Your task to perform on an android device: turn on javascript in the chrome app Image 0: 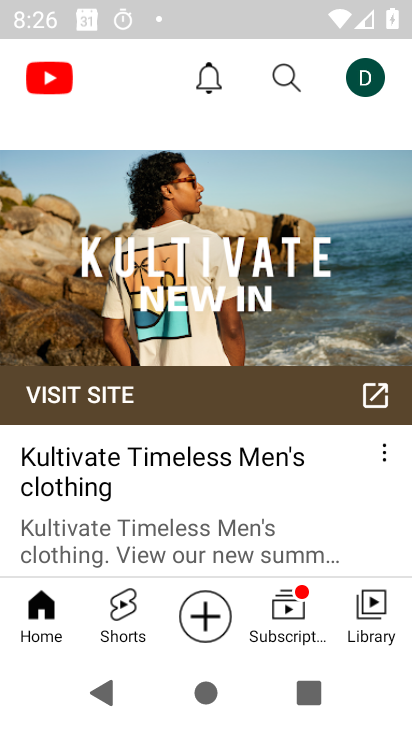
Step 0: press home button
Your task to perform on an android device: turn on javascript in the chrome app Image 1: 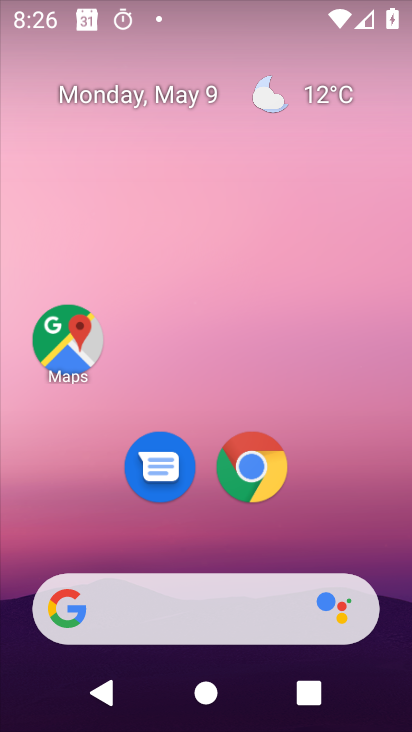
Step 1: click (252, 474)
Your task to perform on an android device: turn on javascript in the chrome app Image 2: 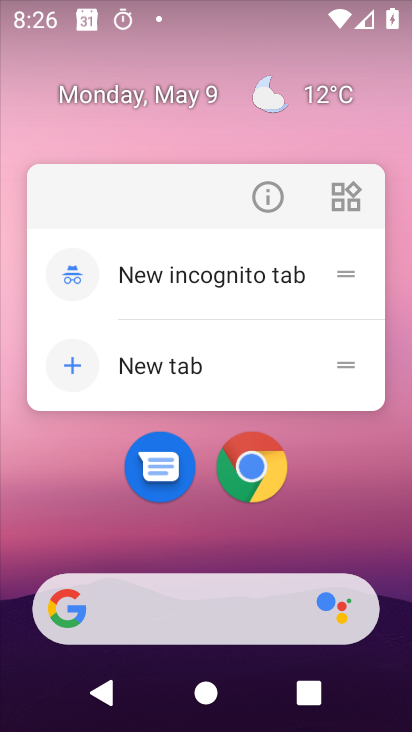
Step 2: click (252, 471)
Your task to perform on an android device: turn on javascript in the chrome app Image 3: 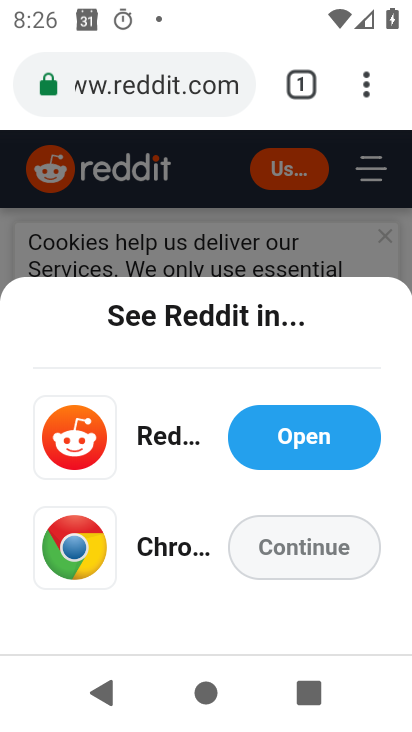
Step 3: drag from (370, 82) to (98, 512)
Your task to perform on an android device: turn on javascript in the chrome app Image 4: 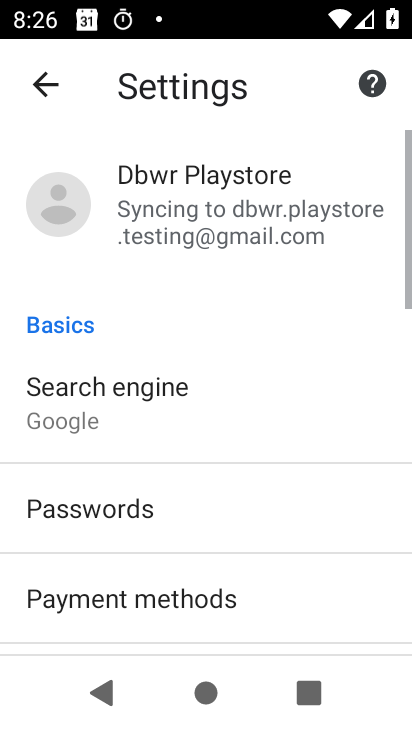
Step 4: drag from (227, 573) to (210, 160)
Your task to perform on an android device: turn on javascript in the chrome app Image 5: 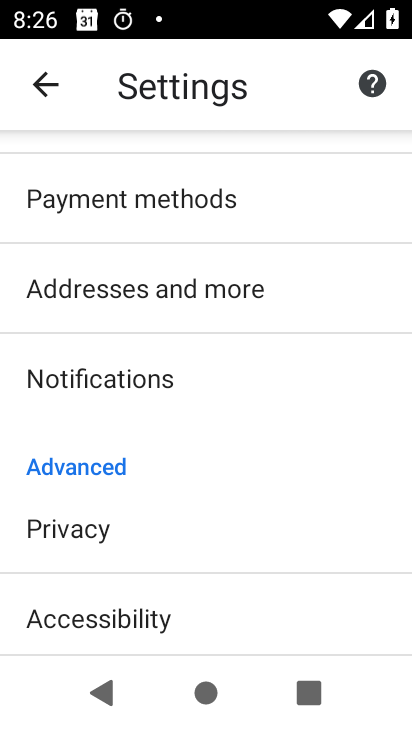
Step 5: drag from (173, 556) to (146, 198)
Your task to perform on an android device: turn on javascript in the chrome app Image 6: 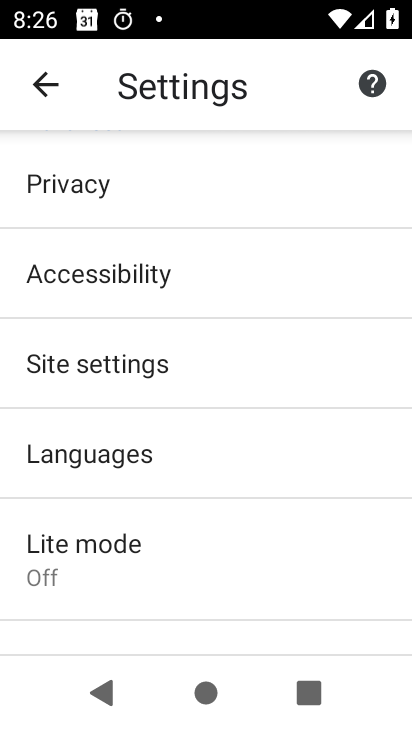
Step 6: click (113, 373)
Your task to perform on an android device: turn on javascript in the chrome app Image 7: 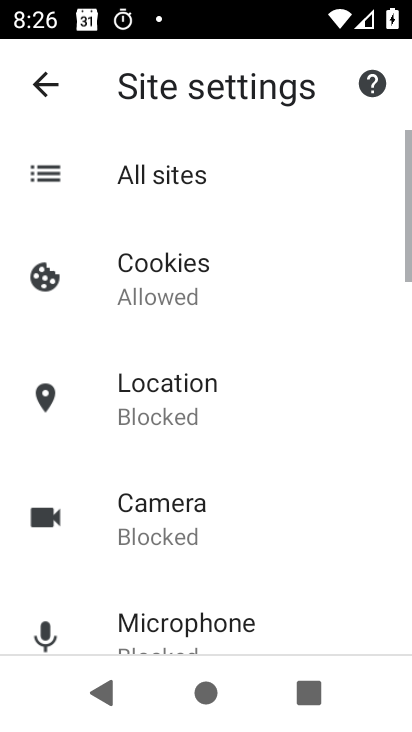
Step 7: drag from (217, 567) to (192, 227)
Your task to perform on an android device: turn on javascript in the chrome app Image 8: 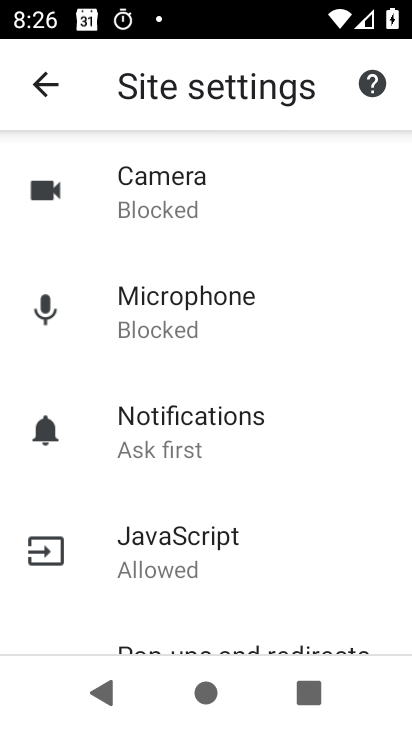
Step 8: click (181, 545)
Your task to perform on an android device: turn on javascript in the chrome app Image 9: 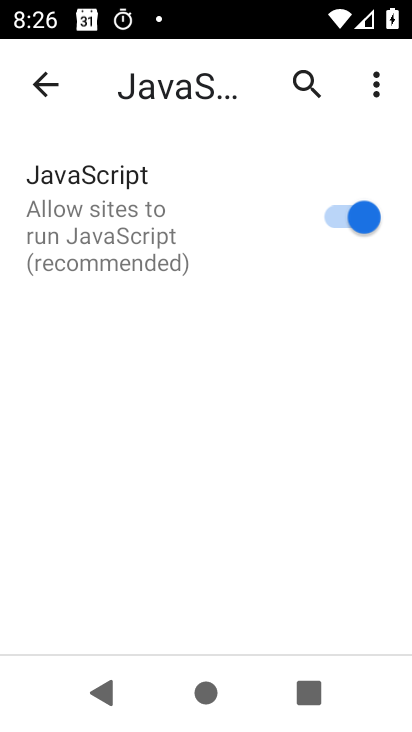
Step 9: task complete